Your task to perform on an android device: Show me recent news Image 0: 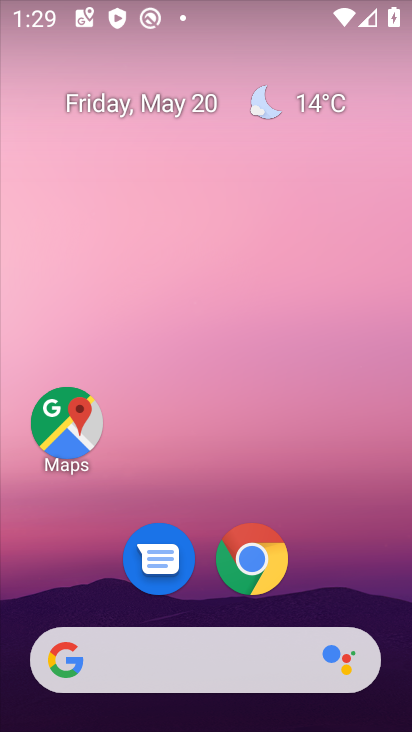
Step 0: drag from (373, 579) to (345, 363)
Your task to perform on an android device: Show me recent news Image 1: 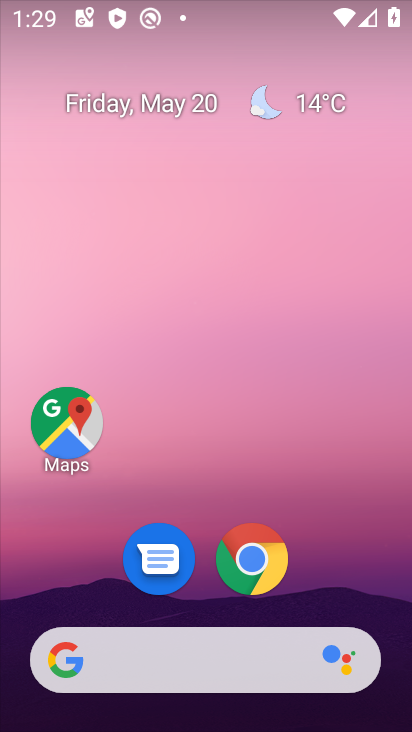
Step 1: drag from (363, 572) to (283, 98)
Your task to perform on an android device: Show me recent news Image 2: 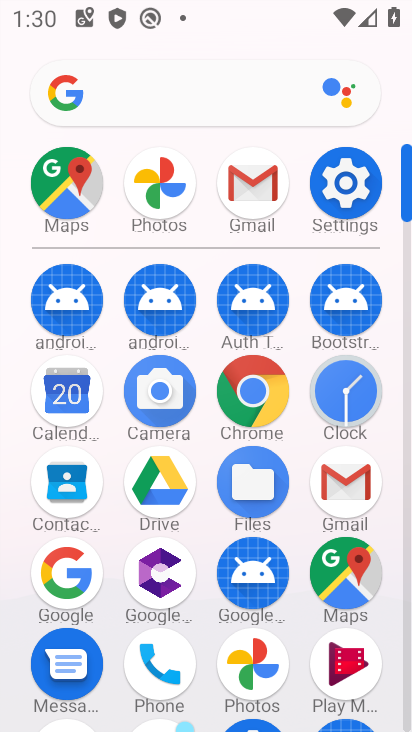
Step 2: click (340, 210)
Your task to perform on an android device: Show me recent news Image 3: 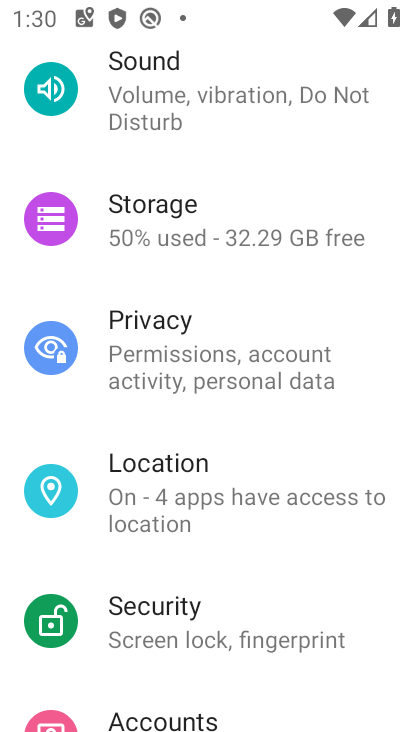
Step 3: press home button
Your task to perform on an android device: Show me recent news Image 4: 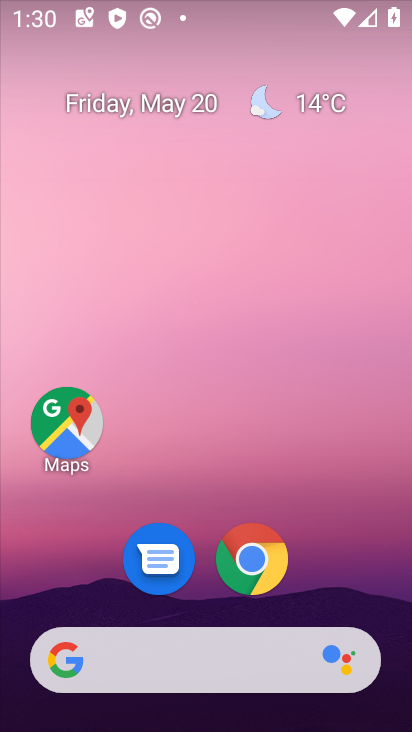
Step 4: click (241, 674)
Your task to perform on an android device: Show me recent news Image 5: 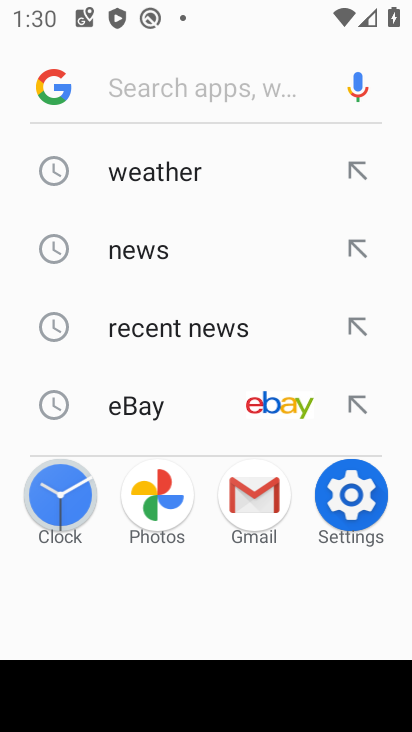
Step 5: click (186, 187)
Your task to perform on an android device: Show me recent news Image 6: 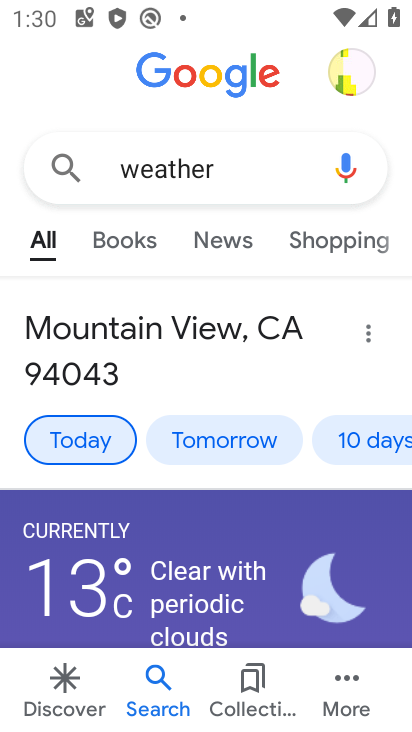
Step 6: click (207, 187)
Your task to perform on an android device: Show me recent news Image 7: 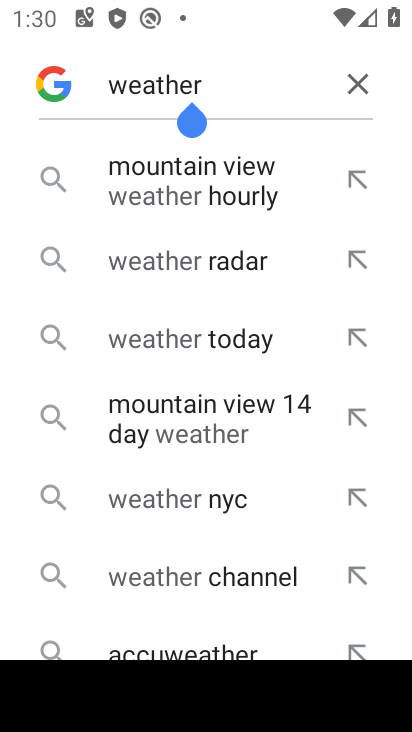
Step 7: click (351, 91)
Your task to perform on an android device: Show me recent news Image 8: 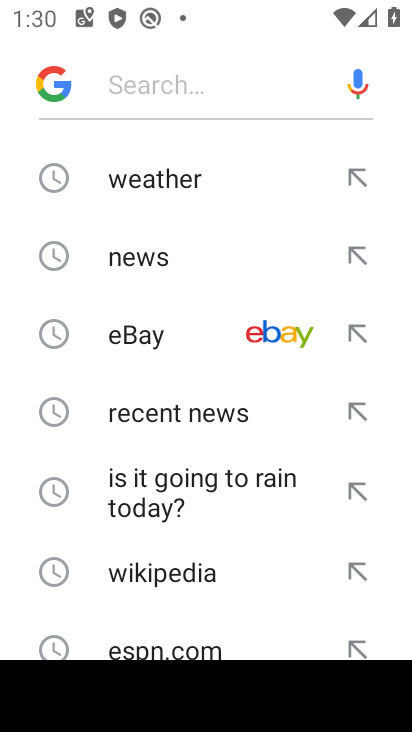
Step 8: click (213, 243)
Your task to perform on an android device: Show me recent news Image 9: 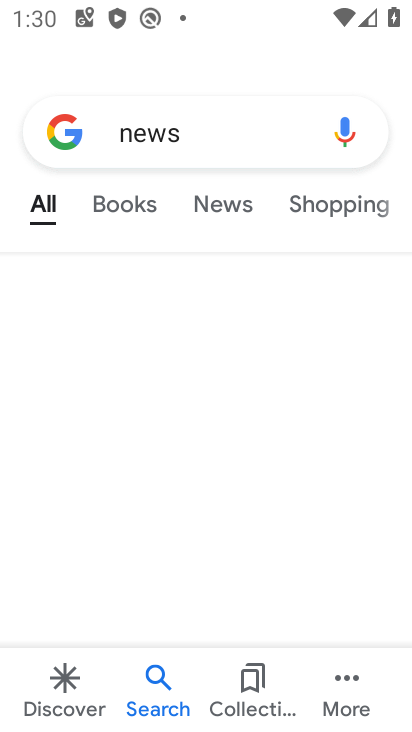
Step 9: task complete